Your task to perform on an android device: allow cookies in the chrome app Image 0: 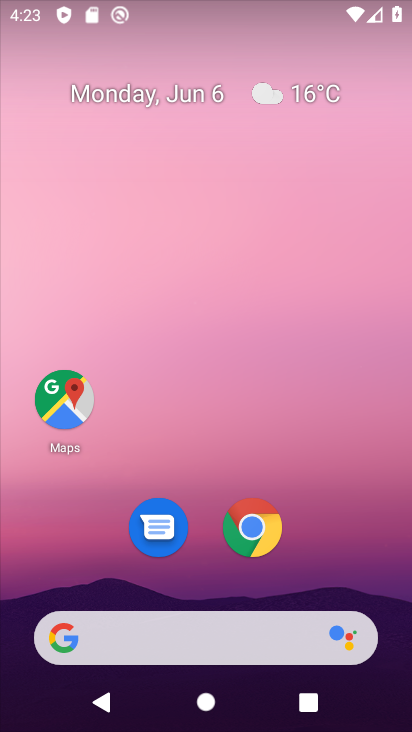
Step 0: click (260, 534)
Your task to perform on an android device: allow cookies in the chrome app Image 1: 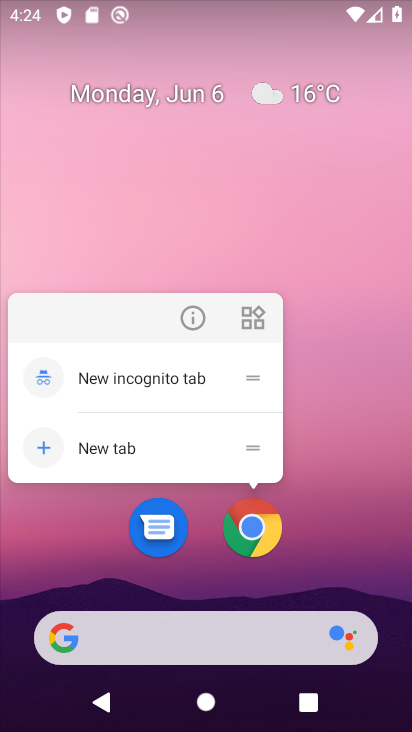
Step 1: click (260, 534)
Your task to perform on an android device: allow cookies in the chrome app Image 2: 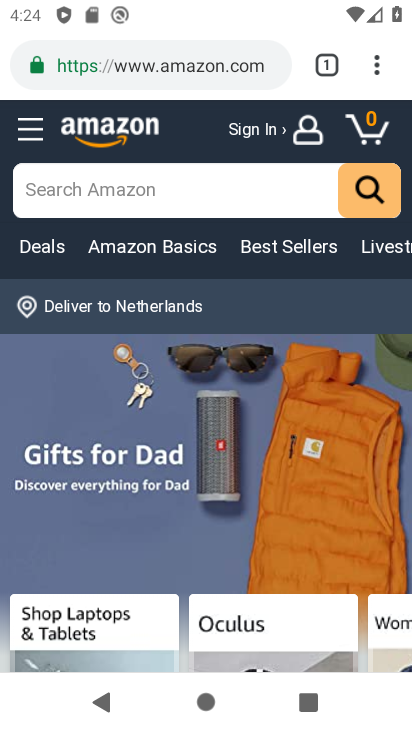
Step 2: click (374, 68)
Your task to perform on an android device: allow cookies in the chrome app Image 3: 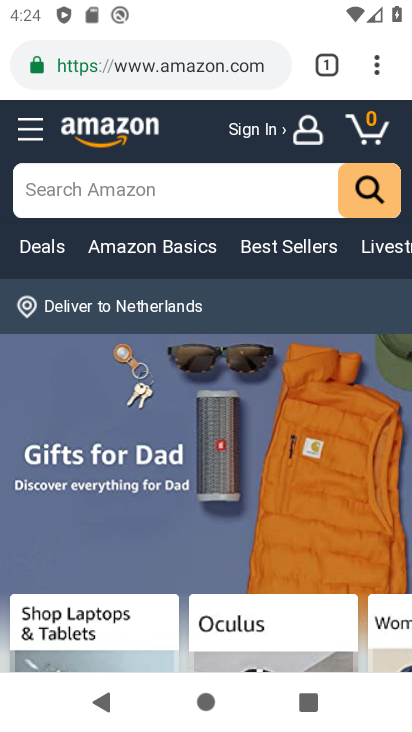
Step 3: click (374, 67)
Your task to perform on an android device: allow cookies in the chrome app Image 4: 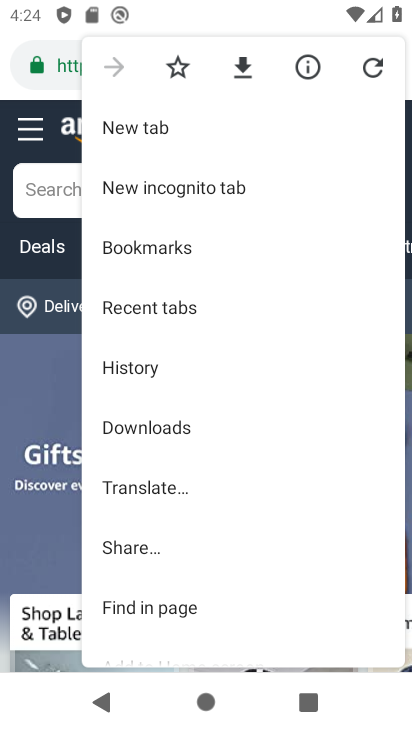
Step 4: drag from (173, 624) to (178, 265)
Your task to perform on an android device: allow cookies in the chrome app Image 5: 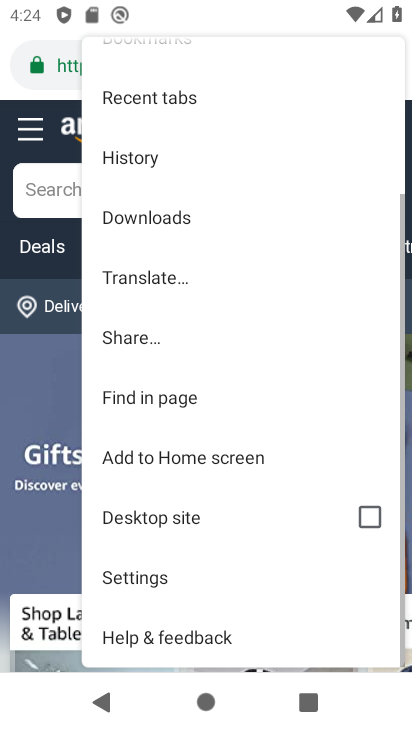
Step 5: click (171, 575)
Your task to perform on an android device: allow cookies in the chrome app Image 6: 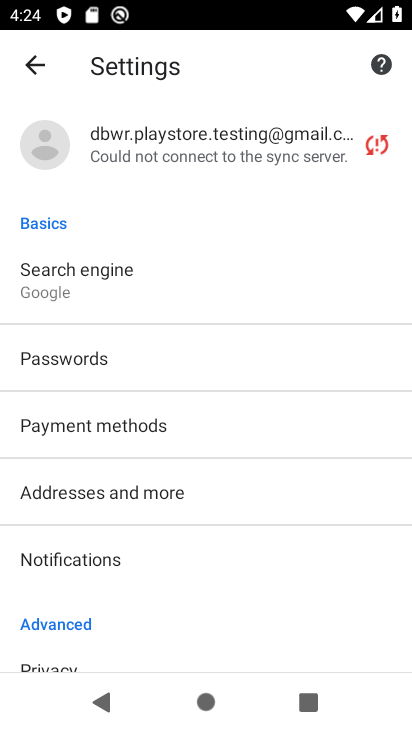
Step 6: drag from (68, 622) to (87, 281)
Your task to perform on an android device: allow cookies in the chrome app Image 7: 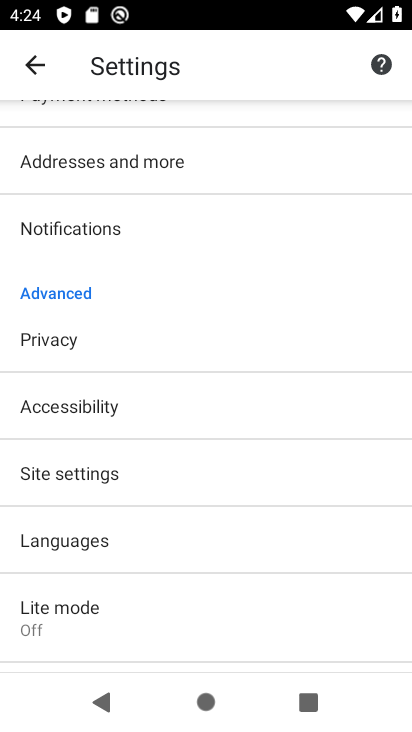
Step 7: click (91, 467)
Your task to perform on an android device: allow cookies in the chrome app Image 8: 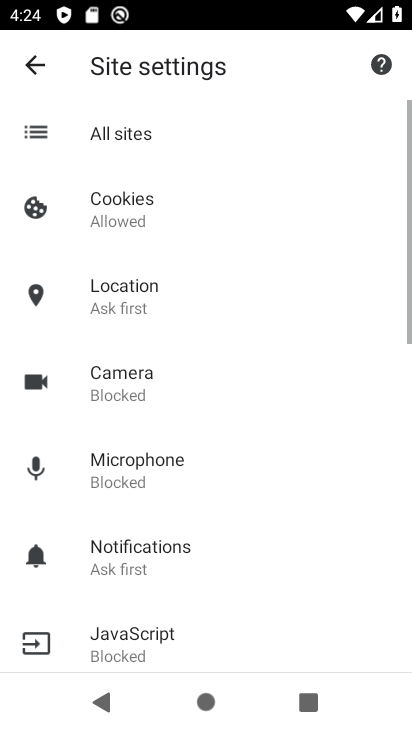
Step 8: click (124, 200)
Your task to perform on an android device: allow cookies in the chrome app Image 9: 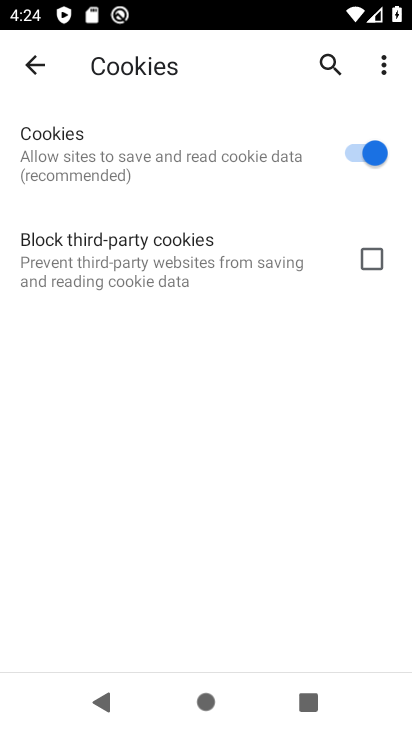
Step 9: task complete